Your task to perform on an android device: What is the recent news? Image 0: 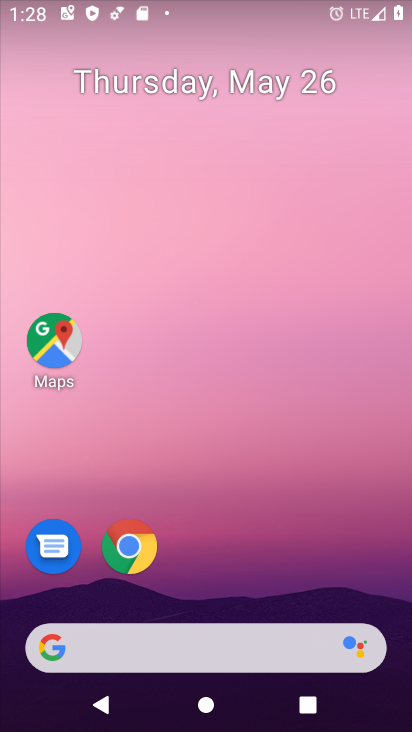
Step 0: drag from (400, 623) to (297, 21)
Your task to perform on an android device: What is the recent news? Image 1: 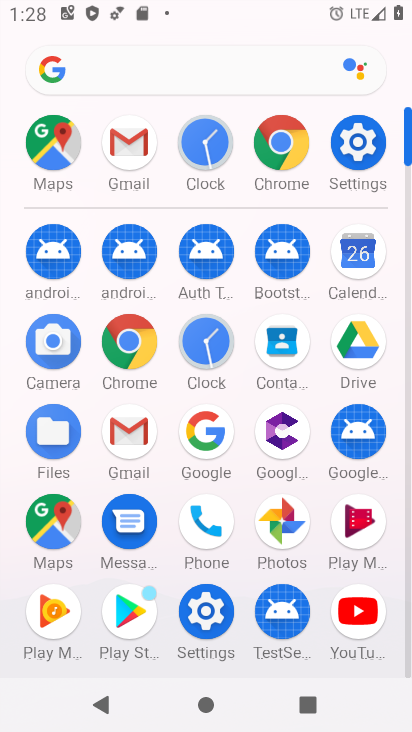
Step 1: click (212, 430)
Your task to perform on an android device: What is the recent news? Image 2: 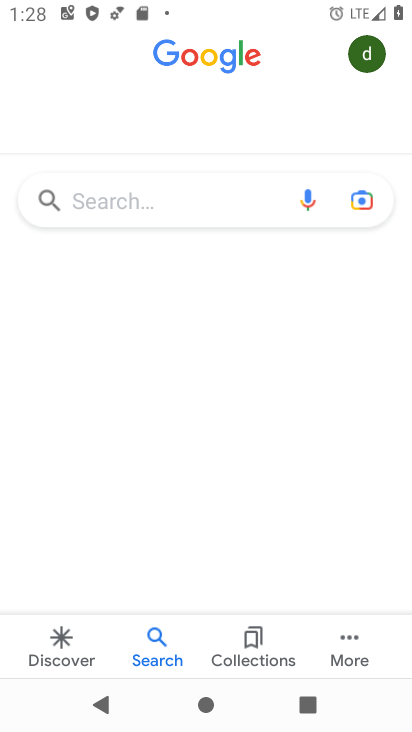
Step 2: click (158, 192)
Your task to perform on an android device: What is the recent news? Image 3: 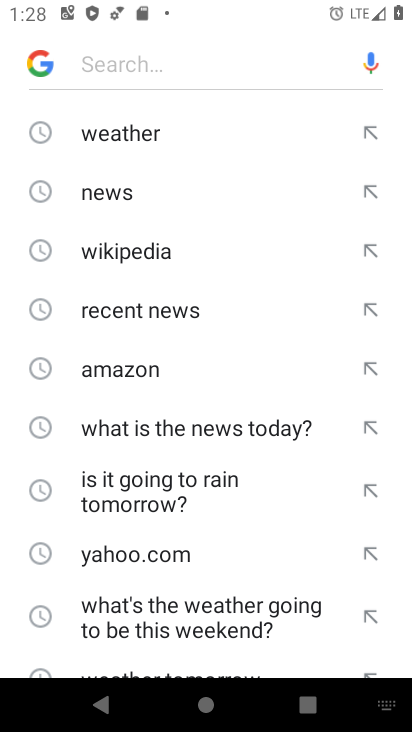
Step 3: click (205, 322)
Your task to perform on an android device: What is the recent news? Image 4: 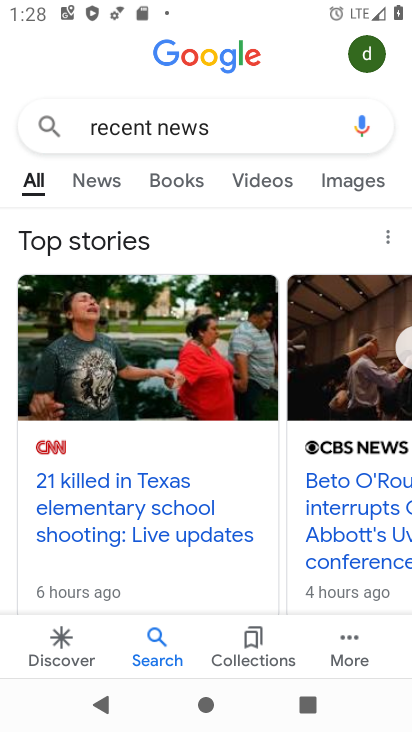
Step 4: task complete